Your task to perform on an android device: turn off notifications settings in the gmail app Image 0: 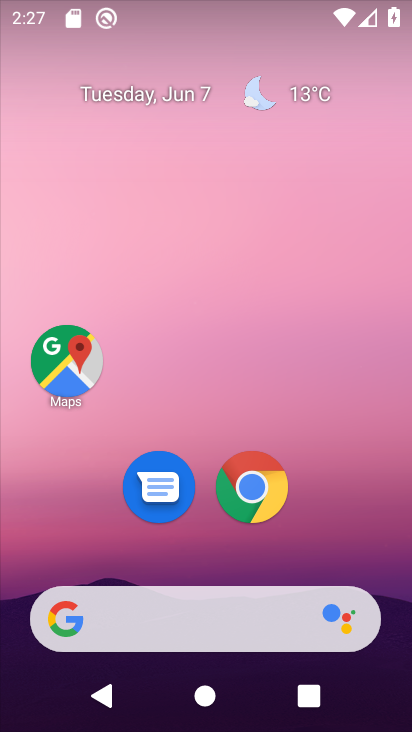
Step 0: drag from (395, 575) to (291, 139)
Your task to perform on an android device: turn off notifications settings in the gmail app Image 1: 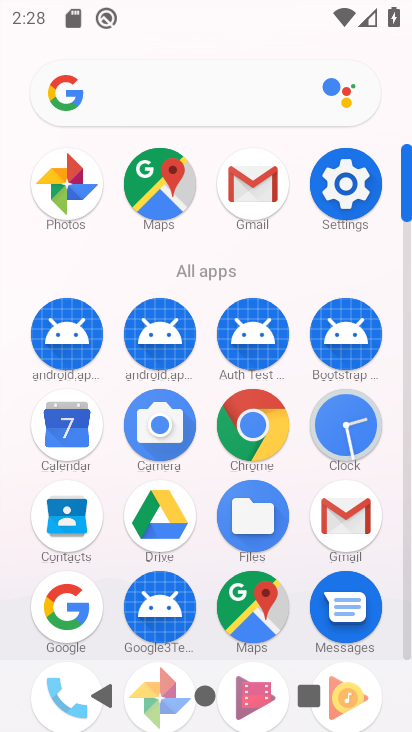
Step 1: click (266, 195)
Your task to perform on an android device: turn off notifications settings in the gmail app Image 2: 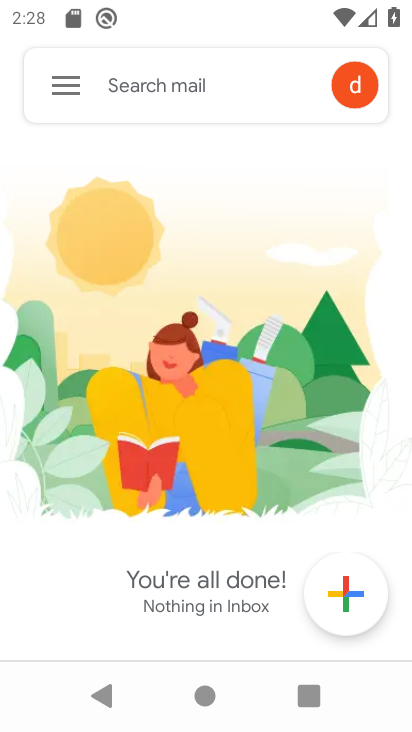
Step 2: click (74, 70)
Your task to perform on an android device: turn off notifications settings in the gmail app Image 3: 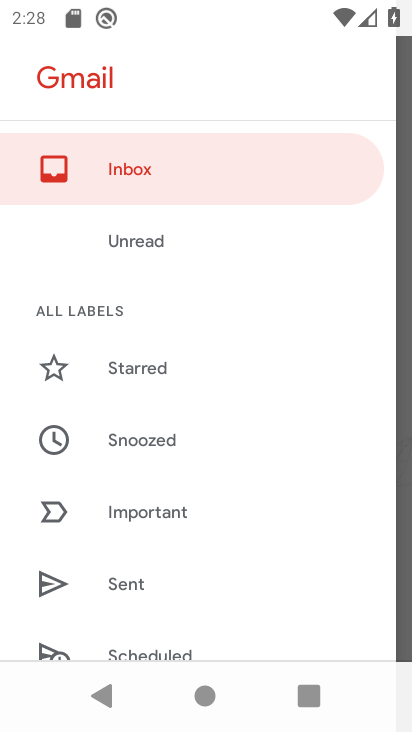
Step 3: drag from (205, 621) to (213, 5)
Your task to perform on an android device: turn off notifications settings in the gmail app Image 4: 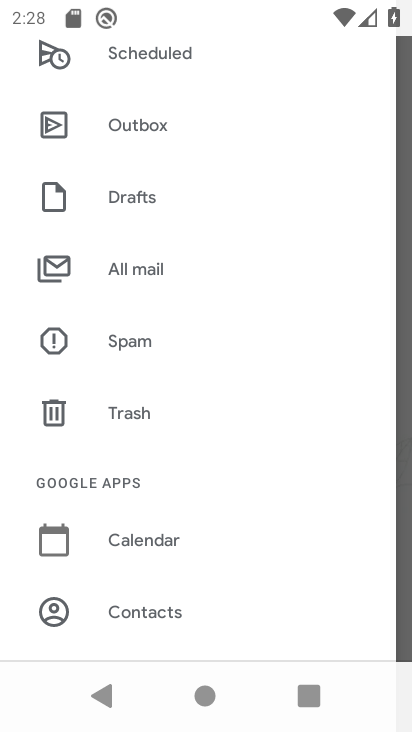
Step 4: drag from (236, 601) to (198, 291)
Your task to perform on an android device: turn off notifications settings in the gmail app Image 5: 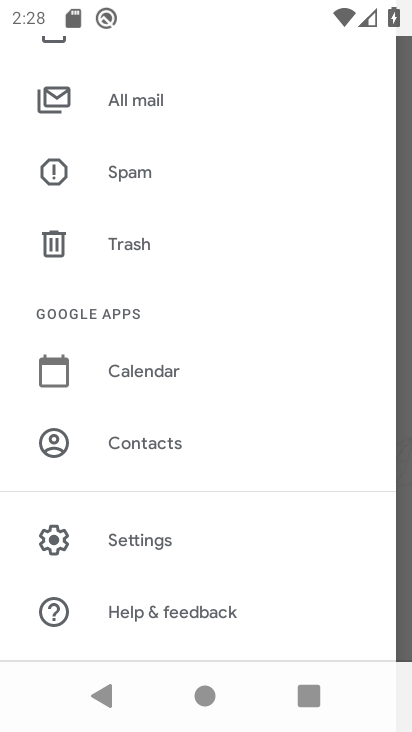
Step 5: click (163, 527)
Your task to perform on an android device: turn off notifications settings in the gmail app Image 6: 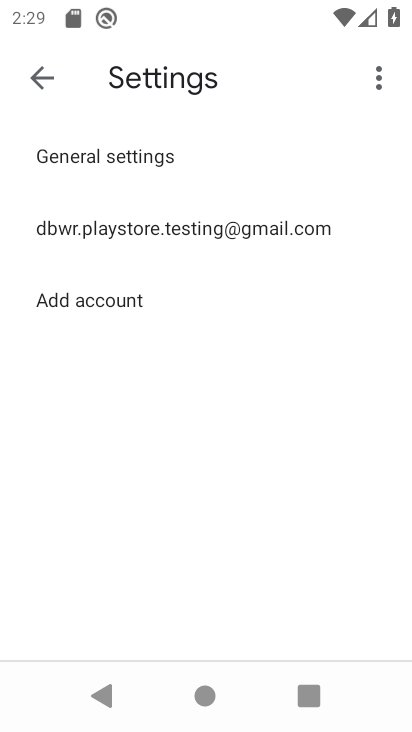
Step 6: click (217, 234)
Your task to perform on an android device: turn off notifications settings in the gmail app Image 7: 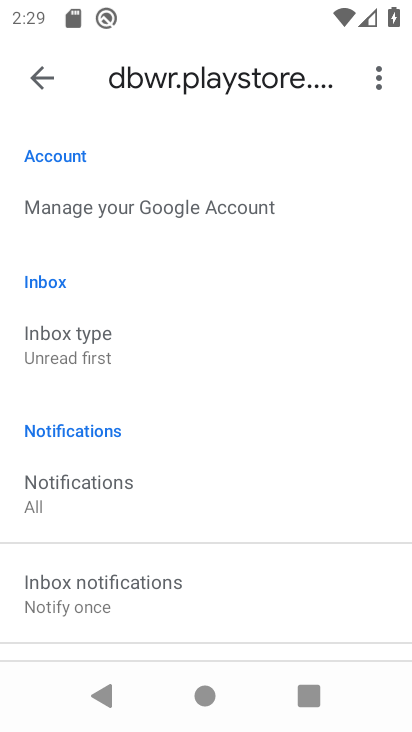
Step 7: drag from (227, 603) to (184, 136)
Your task to perform on an android device: turn off notifications settings in the gmail app Image 8: 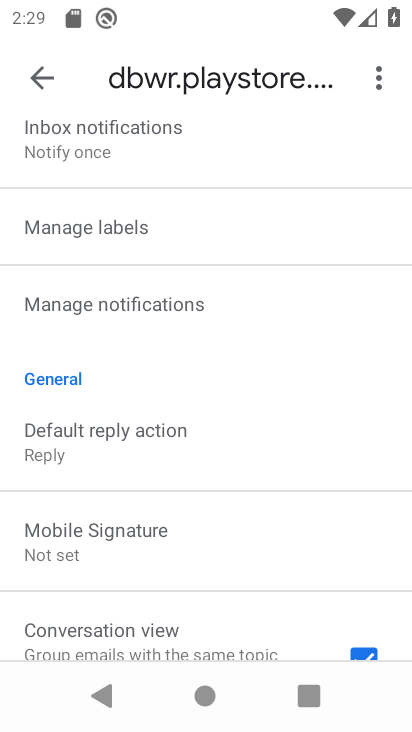
Step 8: click (208, 313)
Your task to perform on an android device: turn off notifications settings in the gmail app Image 9: 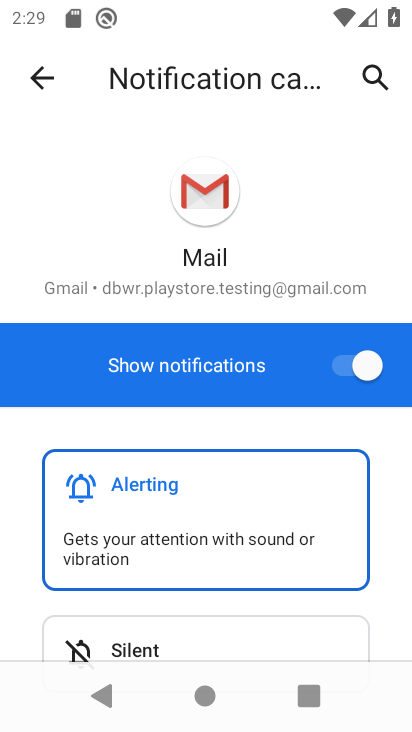
Step 9: task complete